Your task to perform on an android device: What's the weather going to be this weekend? Image 0: 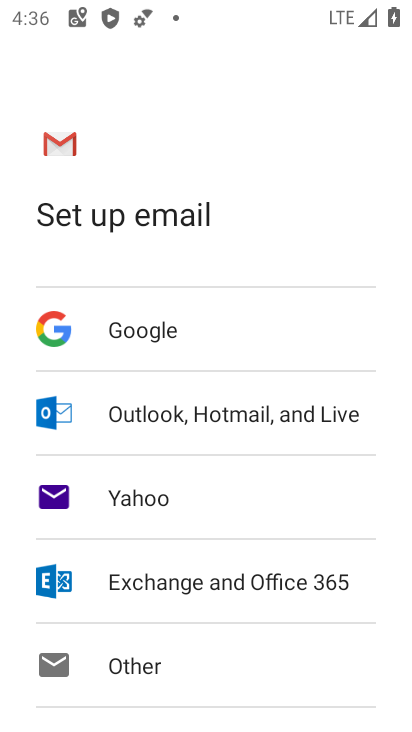
Step 0: press back button
Your task to perform on an android device: What's the weather going to be this weekend? Image 1: 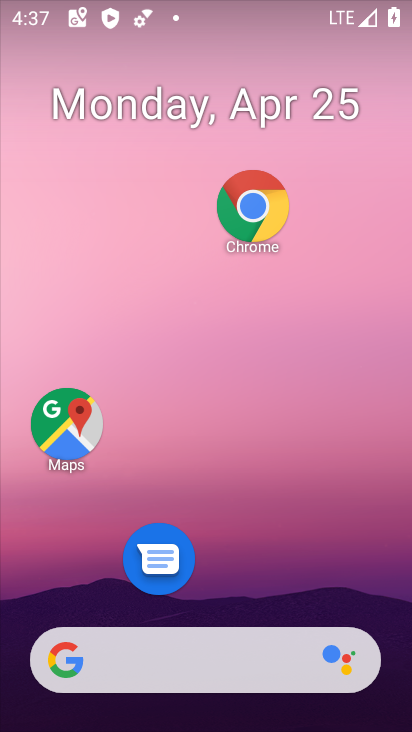
Step 1: drag from (262, 568) to (184, 75)
Your task to perform on an android device: What's the weather going to be this weekend? Image 2: 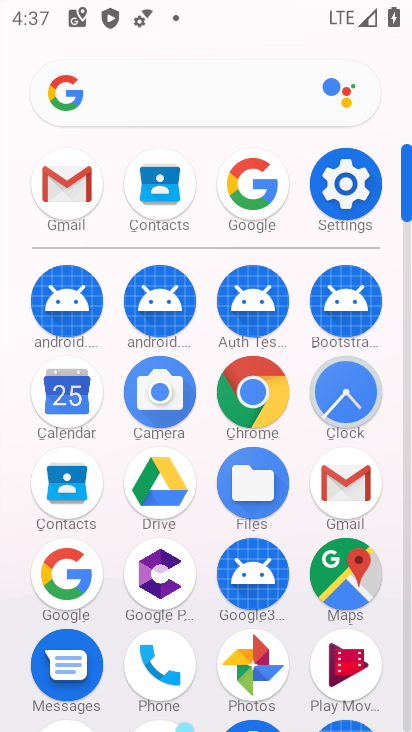
Step 2: click (249, 182)
Your task to perform on an android device: What's the weather going to be this weekend? Image 3: 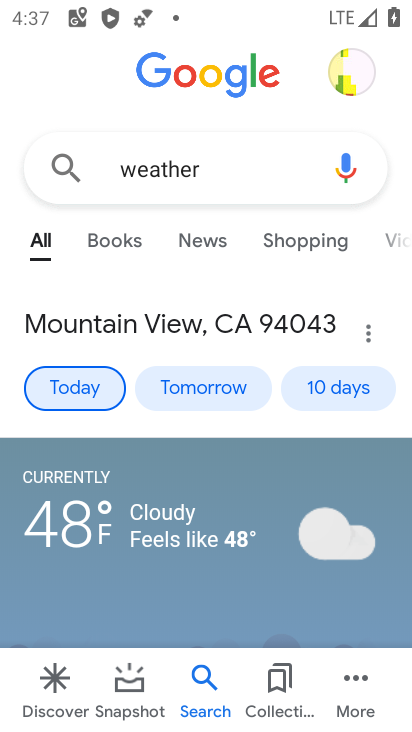
Step 3: click (349, 387)
Your task to perform on an android device: What's the weather going to be this weekend? Image 4: 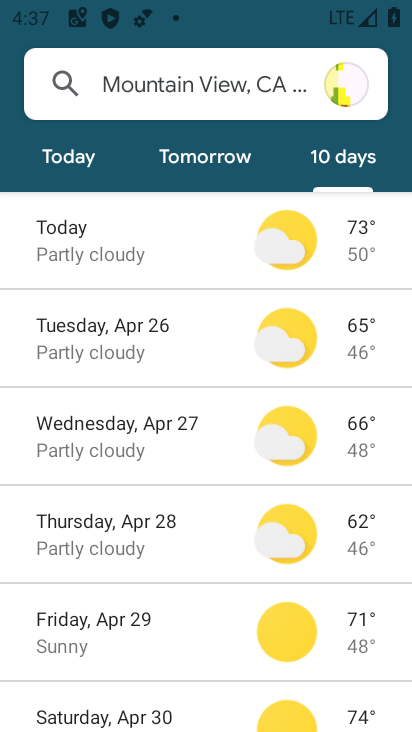
Step 4: task complete